Your task to perform on an android device: turn off smart reply in the gmail app Image 0: 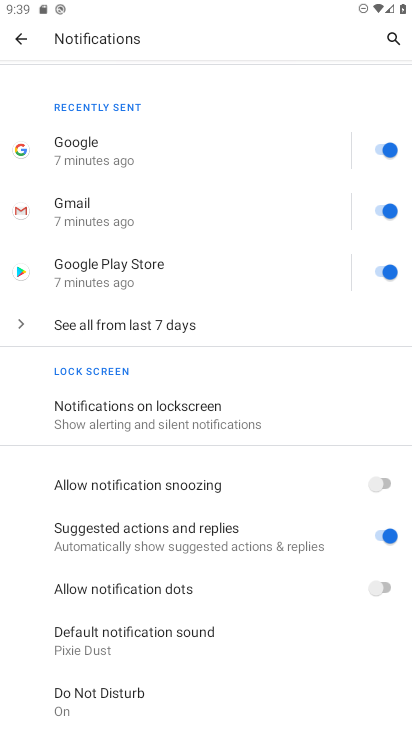
Step 0: press home button
Your task to perform on an android device: turn off smart reply in the gmail app Image 1: 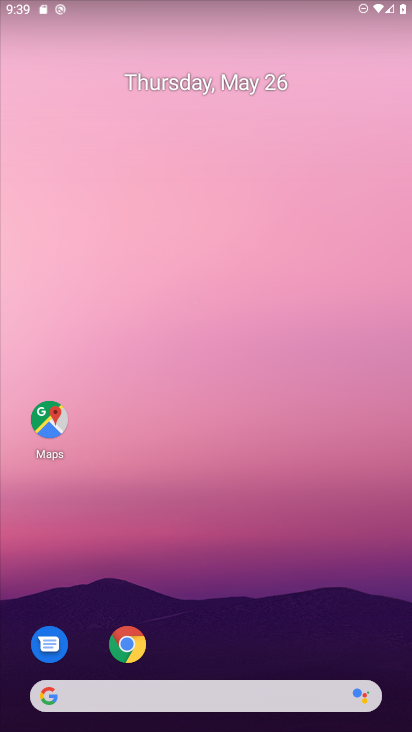
Step 1: drag from (154, 669) to (222, 196)
Your task to perform on an android device: turn off smart reply in the gmail app Image 2: 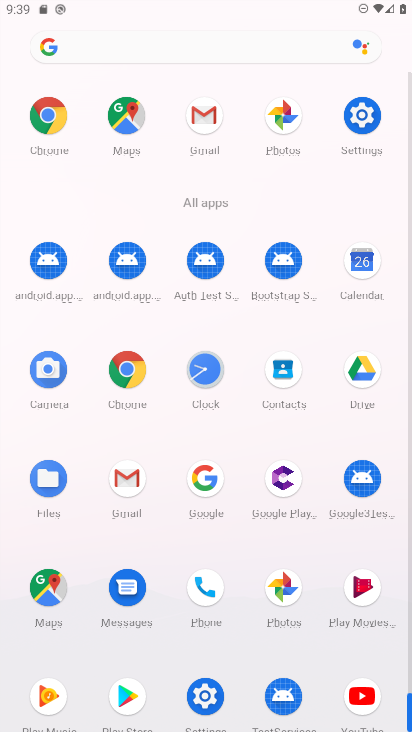
Step 2: click (132, 471)
Your task to perform on an android device: turn off smart reply in the gmail app Image 3: 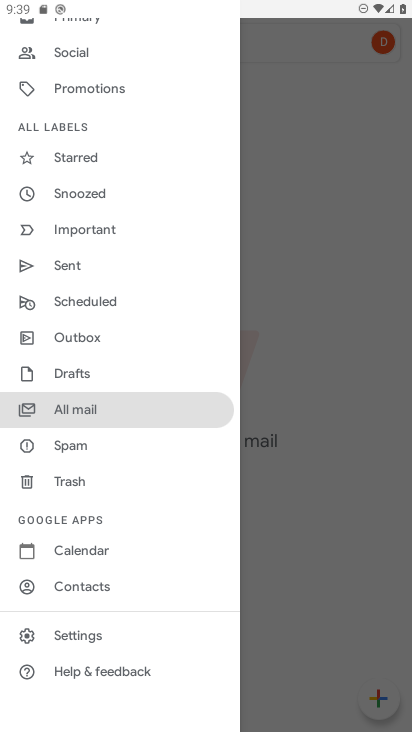
Step 3: click (95, 634)
Your task to perform on an android device: turn off smart reply in the gmail app Image 4: 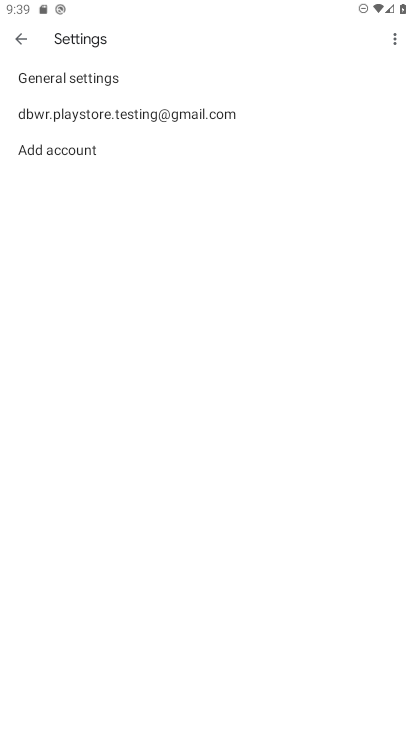
Step 4: drag from (167, 644) to (263, 222)
Your task to perform on an android device: turn off smart reply in the gmail app Image 5: 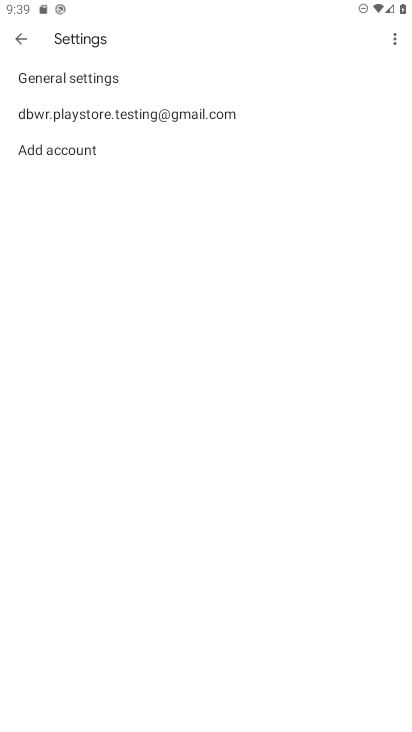
Step 5: click (197, 107)
Your task to perform on an android device: turn off smart reply in the gmail app Image 6: 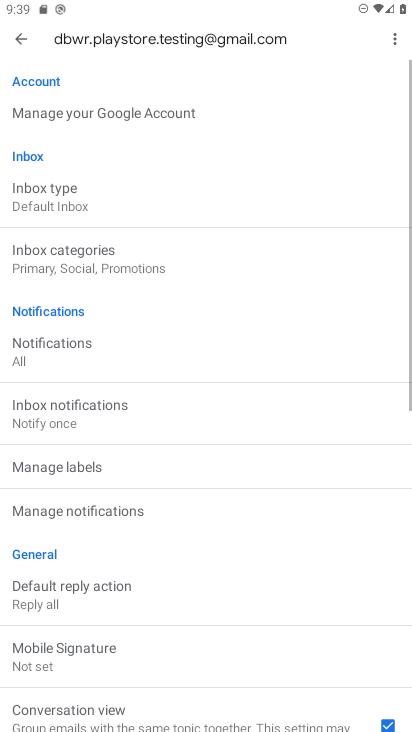
Step 6: drag from (124, 631) to (244, 154)
Your task to perform on an android device: turn off smart reply in the gmail app Image 7: 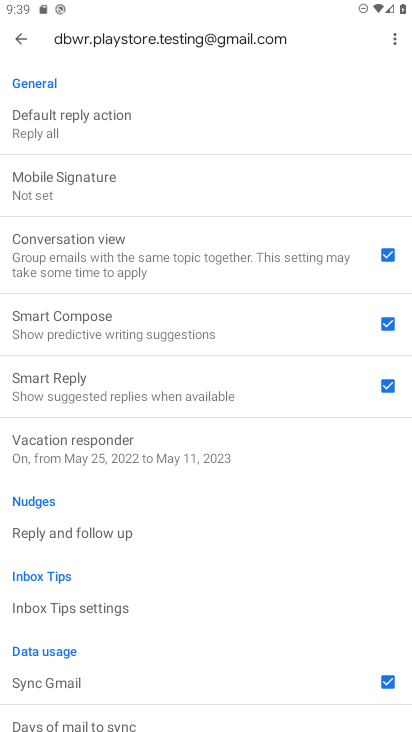
Step 7: click (386, 390)
Your task to perform on an android device: turn off smart reply in the gmail app Image 8: 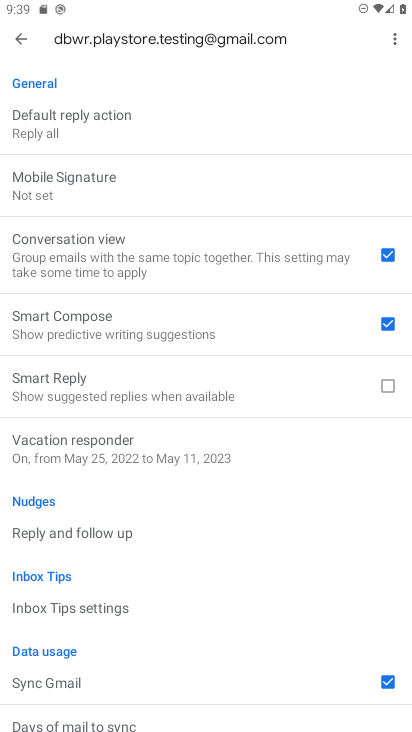
Step 8: task complete